Your task to perform on an android device: What's the weather today? Image 0: 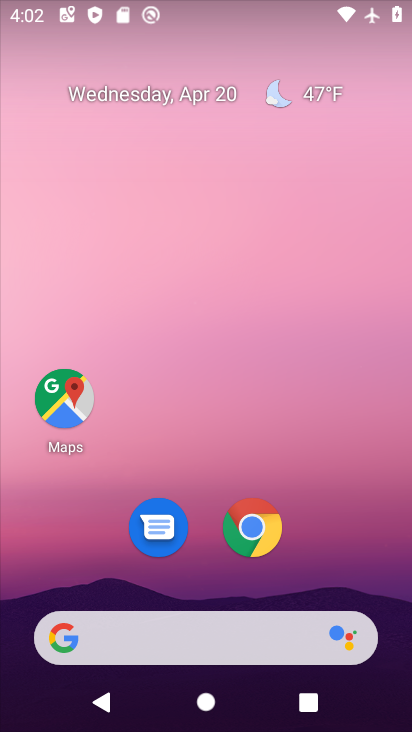
Step 0: click (253, 525)
Your task to perform on an android device: What's the weather today? Image 1: 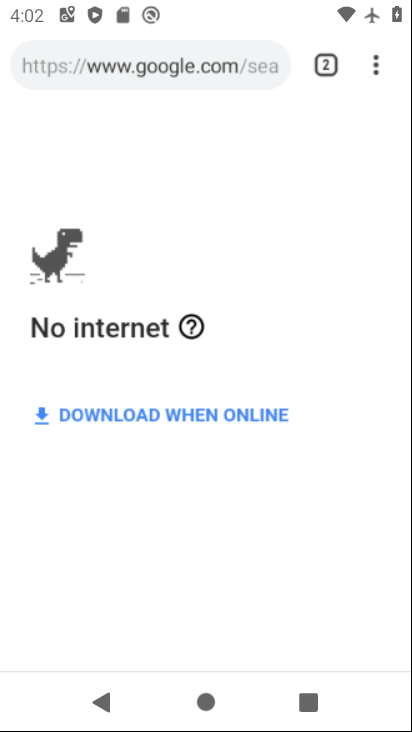
Step 1: click (137, 59)
Your task to perform on an android device: What's the weather today? Image 2: 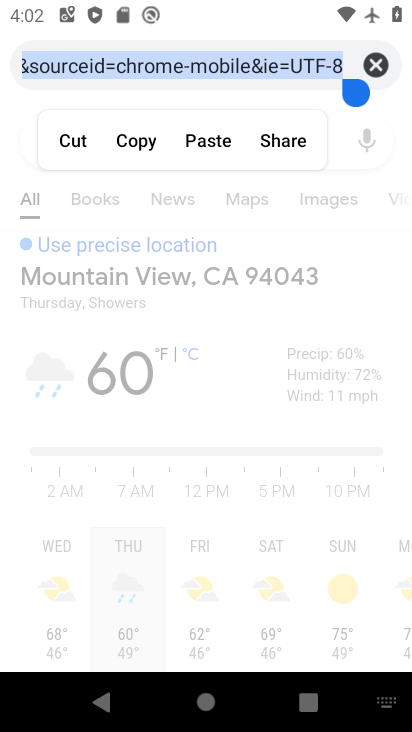
Step 2: type "what's the weather today?"
Your task to perform on an android device: What's the weather today? Image 3: 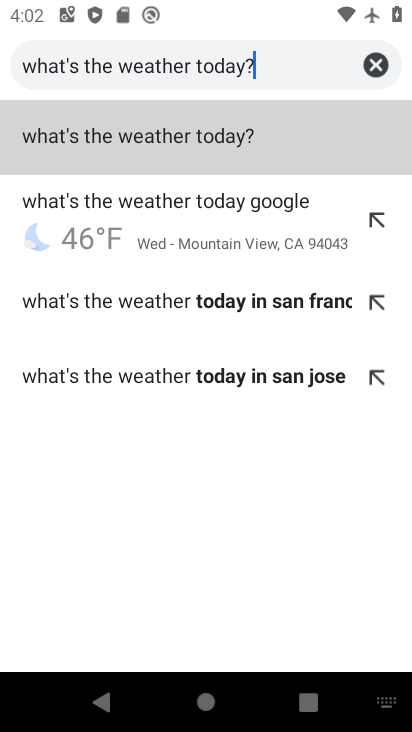
Step 3: click (140, 146)
Your task to perform on an android device: What's the weather today? Image 4: 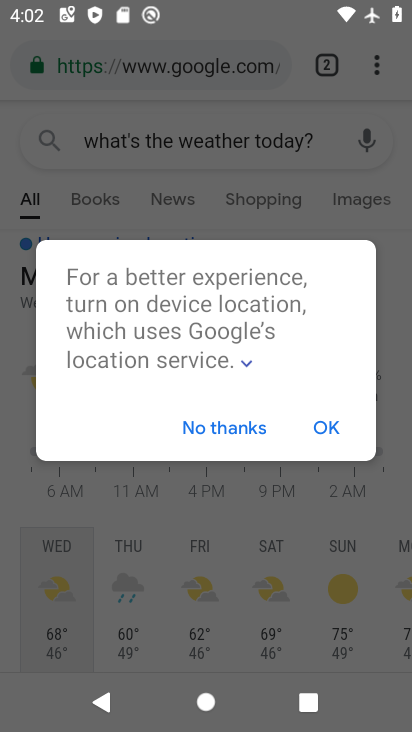
Step 4: click (340, 431)
Your task to perform on an android device: What's the weather today? Image 5: 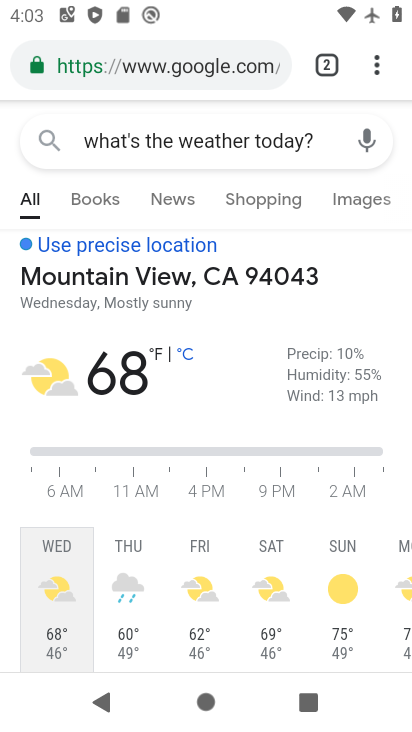
Step 5: task complete